Your task to perform on an android device: Open the calendar and show me this week's events? Image 0: 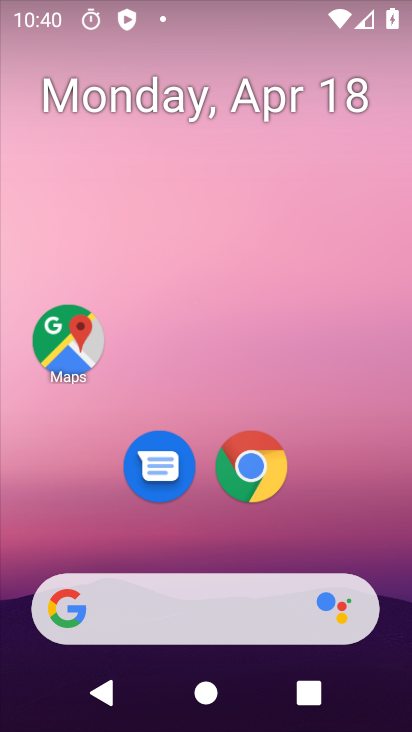
Step 0: drag from (259, 618) to (271, 237)
Your task to perform on an android device: Open the calendar and show me this week's events? Image 1: 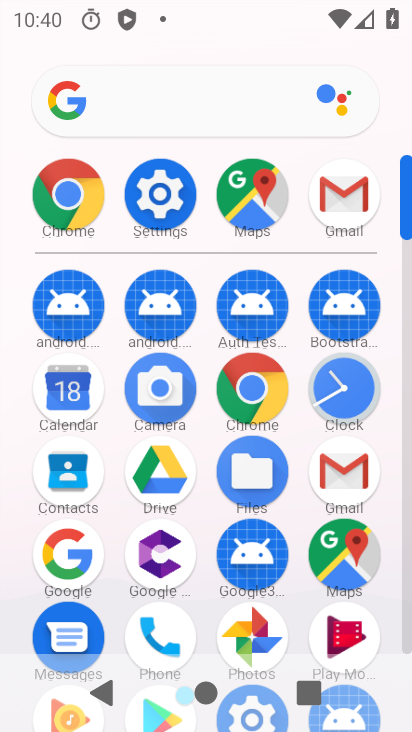
Step 1: click (80, 385)
Your task to perform on an android device: Open the calendar and show me this week's events? Image 2: 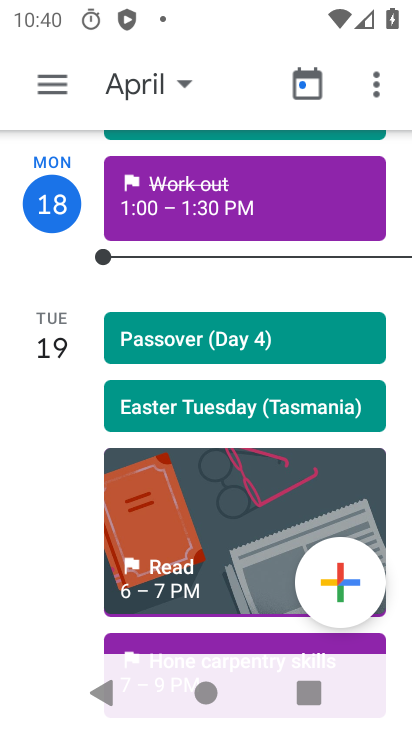
Step 2: click (178, 89)
Your task to perform on an android device: Open the calendar and show me this week's events? Image 3: 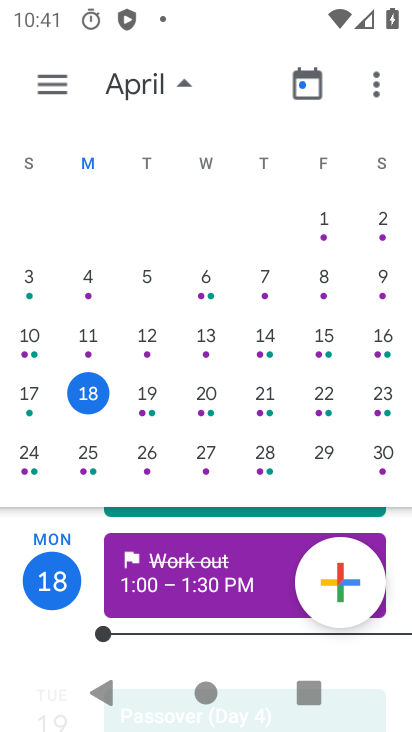
Step 3: click (26, 465)
Your task to perform on an android device: Open the calendar and show me this week's events? Image 4: 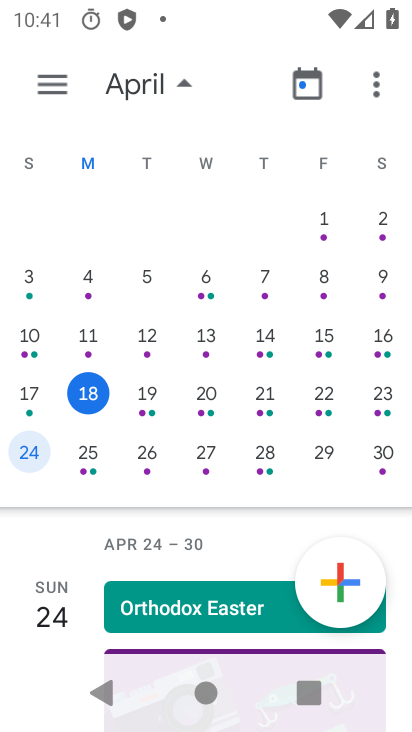
Step 4: task complete